Your task to perform on an android device: manage bookmarks in the chrome app Image 0: 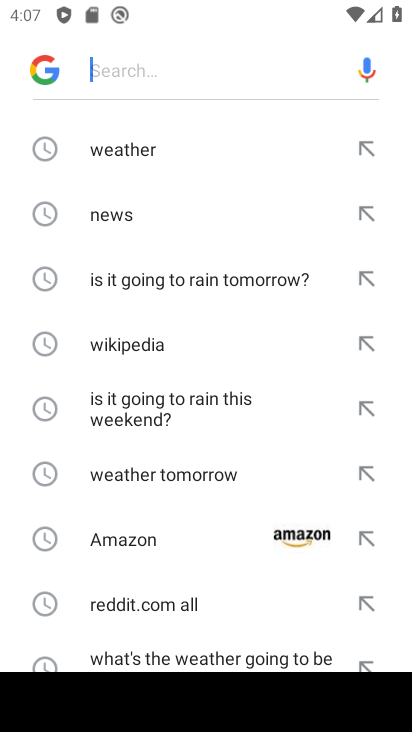
Step 0: press home button
Your task to perform on an android device: manage bookmarks in the chrome app Image 1: 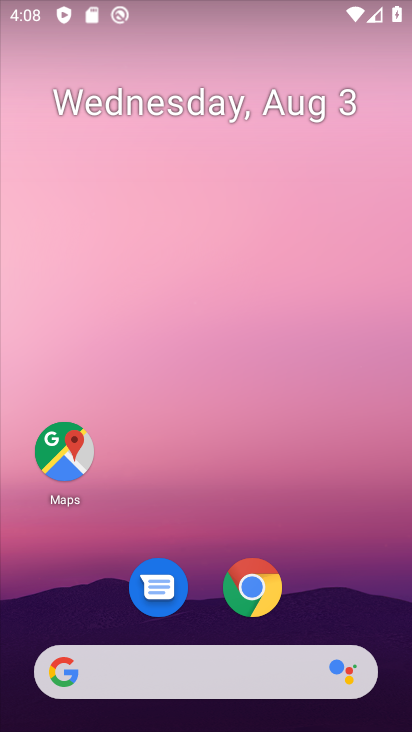
Step 1: drag from (84, 583) to (194, 313)
Your task to perform on an android device: manage bookmarks in the chrome app Image 2: 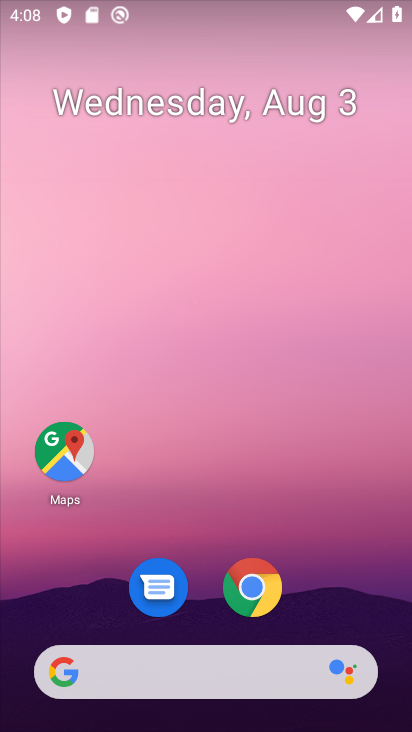
Step 2: drag from (25, 662) to (254, 65)
Your task to perform on an android device: manage bookmarks in the chrome app Image 3: 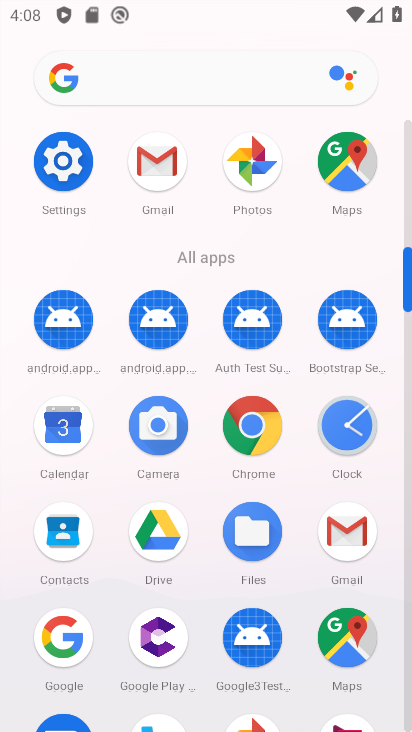
Step 3: click (264, 423)
Your task to perform on an android device: manage bookmarks in the chrome app Image 4: 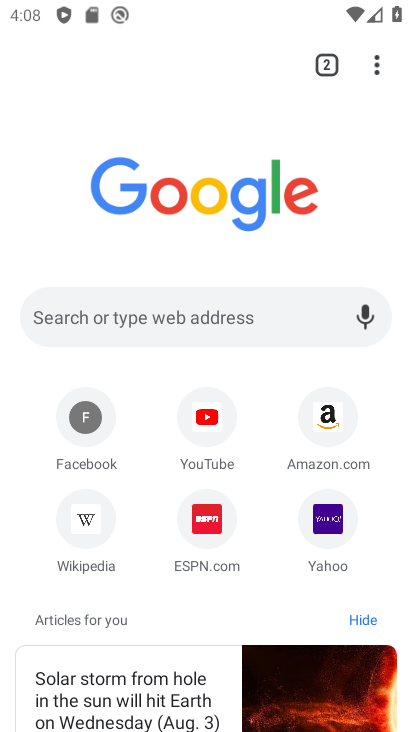
Step 4: click (380, 61)
Your task to perform on an android device: manage bookmarks in the chrome app Image 5: 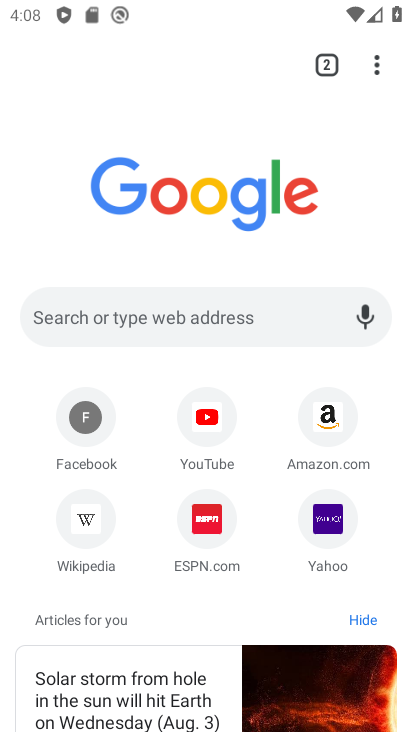
Step 5: click (377, 64)
Your task to perform on an android device: manage bookmarks in the chrome app Image 6: 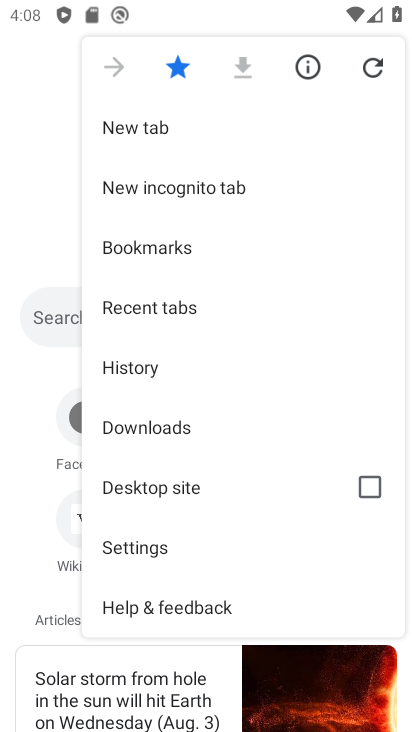
Step 6: click (154, 247)
Your task to perform on an android device: manage bookmarks in the chrome app Image 7: 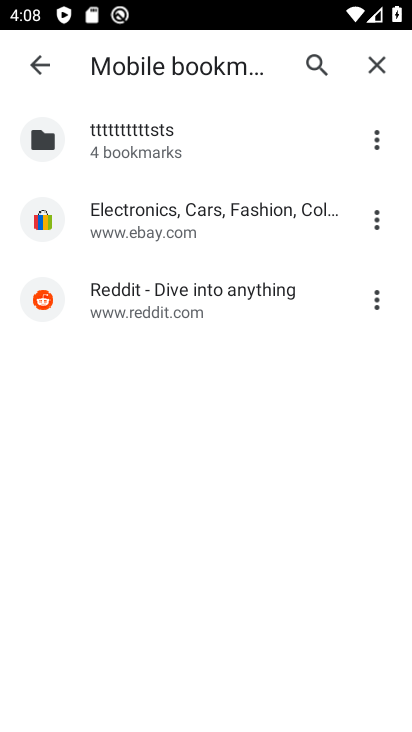
Step 7: task complete